Your task to perform on an android device: Show me popular games on the Play Store Image 0: 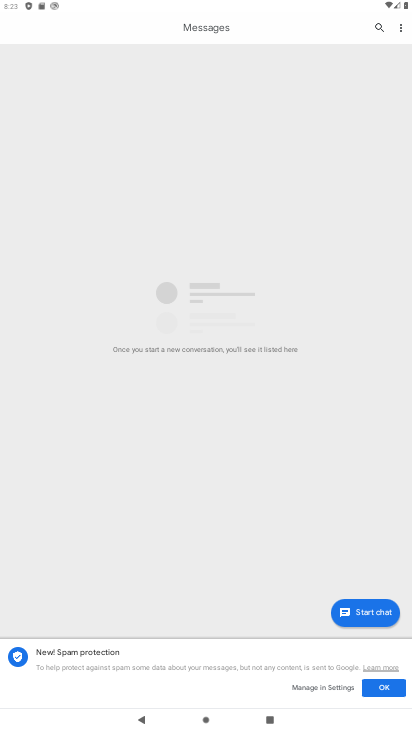
Step 0: press home button
Your task to perform on an android device: Show me popular games on the Play Store Image 1: 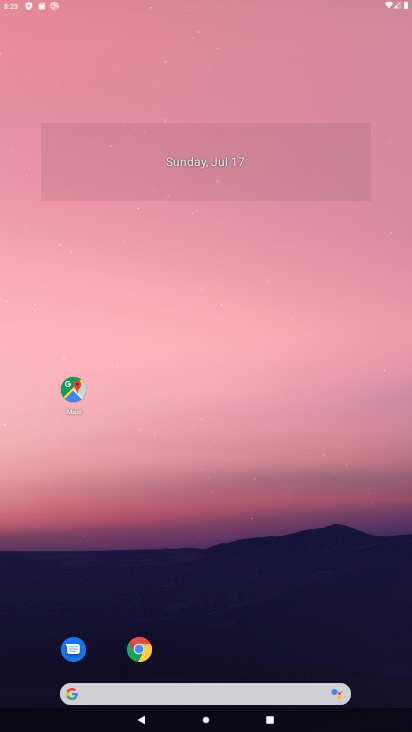
Step 1: drag from (194, 644) to (227, 81)
Your task to perform on an android device: Show me popular games on the Play Store Image 2: 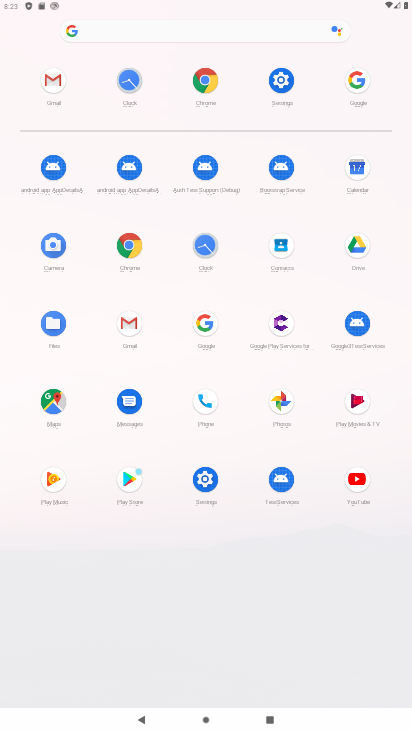
Step 2: click (123, 476)
Your task to perform on an android device: Show me popular games on the Play Store Image 3: 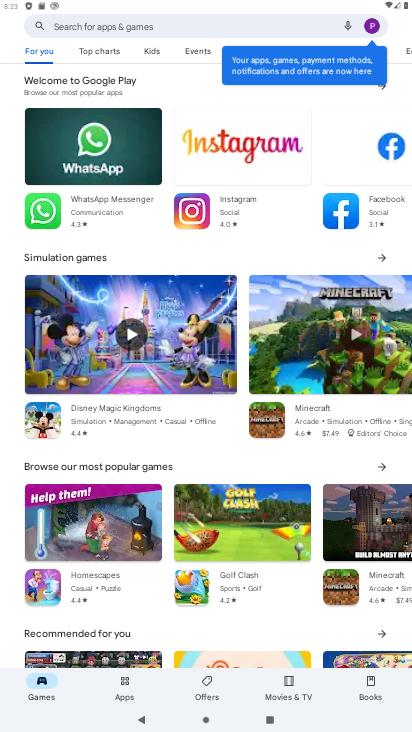
Step 3: click (240, 472)
Your task to perform on an android device: Show me popular games on the Play Store Image 4: 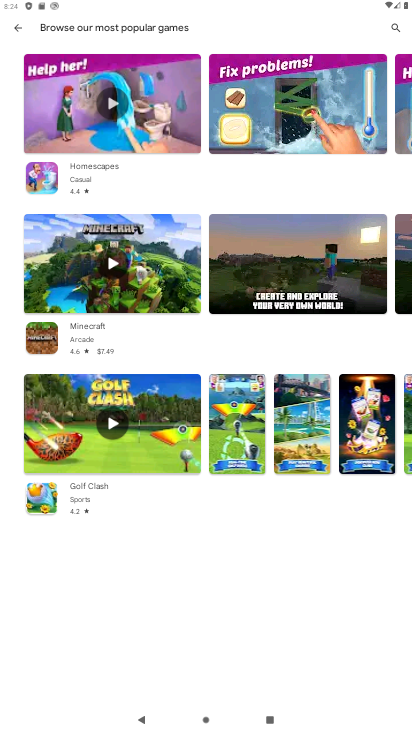
Step 4: task complete